Your task to perform on an android device: Add panasonic triple a to the cart on costco Image 0: 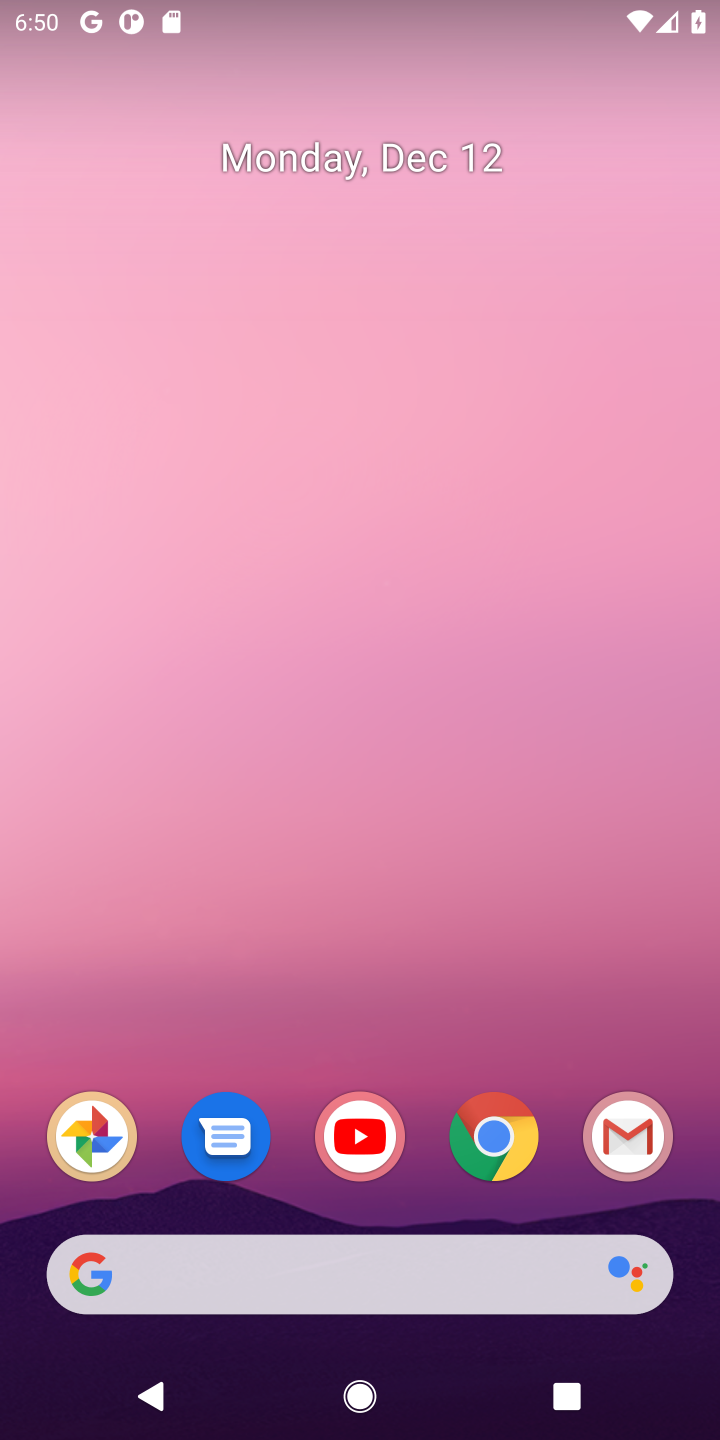
Step 0: click (498, 1134)
Your task to perform on an android device: Add panasonic triple a to the cart on costco Image 1: 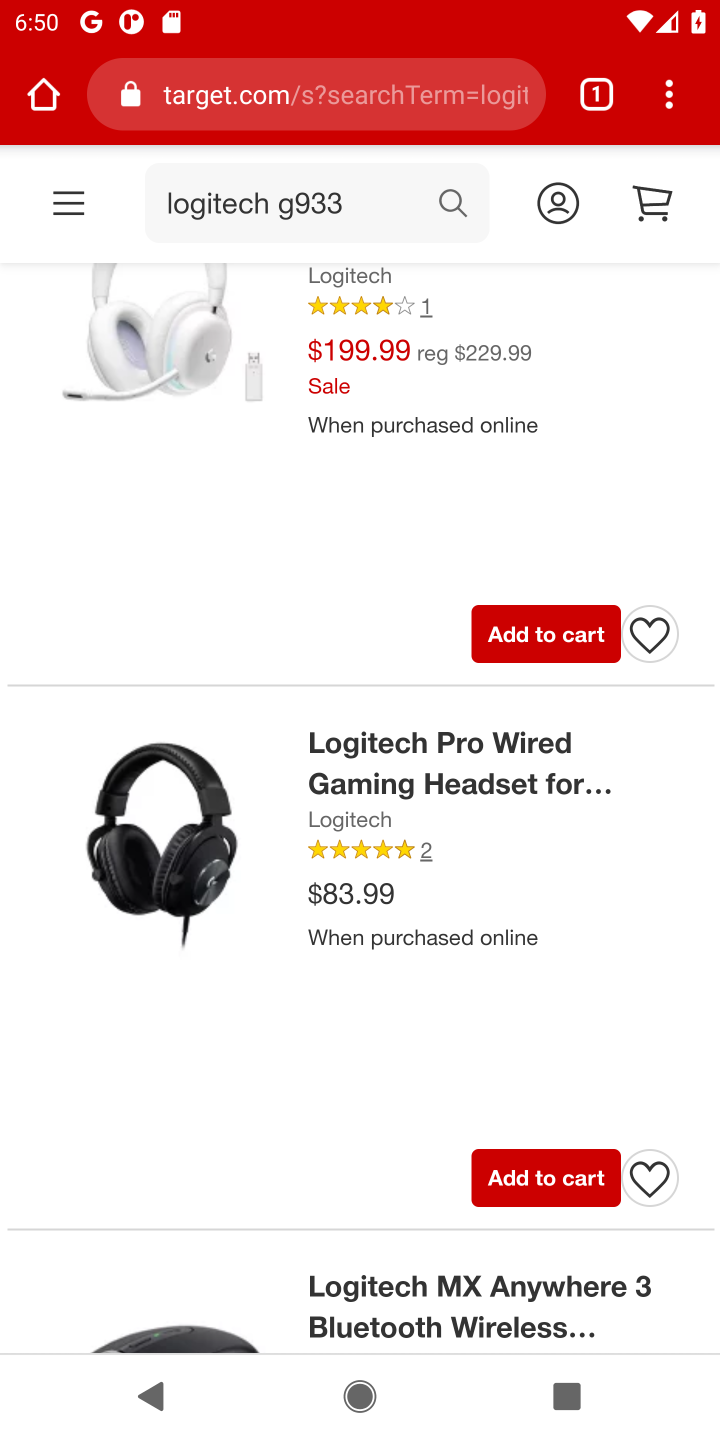
Step 1: click (310, 99)
Your task to perform on an android device: Add panasonic triple a to the cart on costco Image 2: 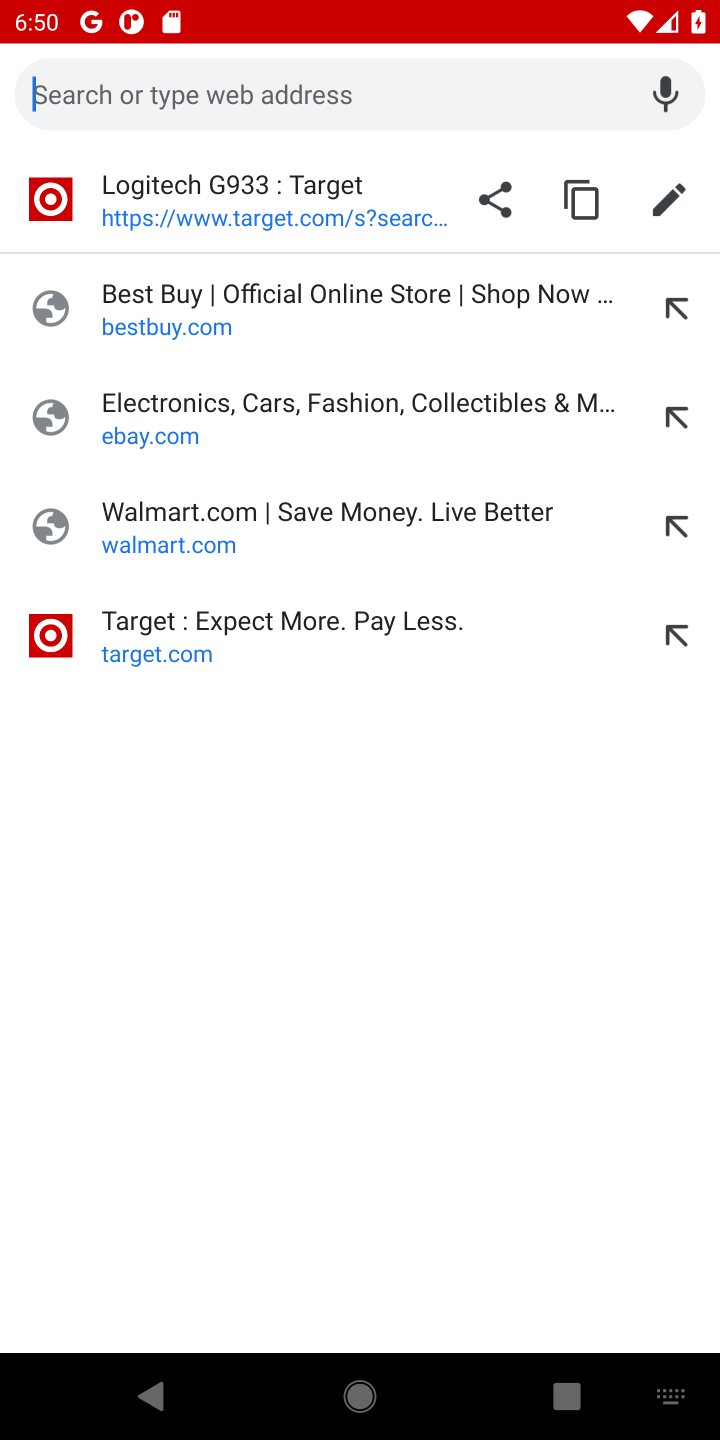
Step 2: type "costco.com"
Your task to perform on an android device: Add panasonic triple a to the cart on costco Image 3: 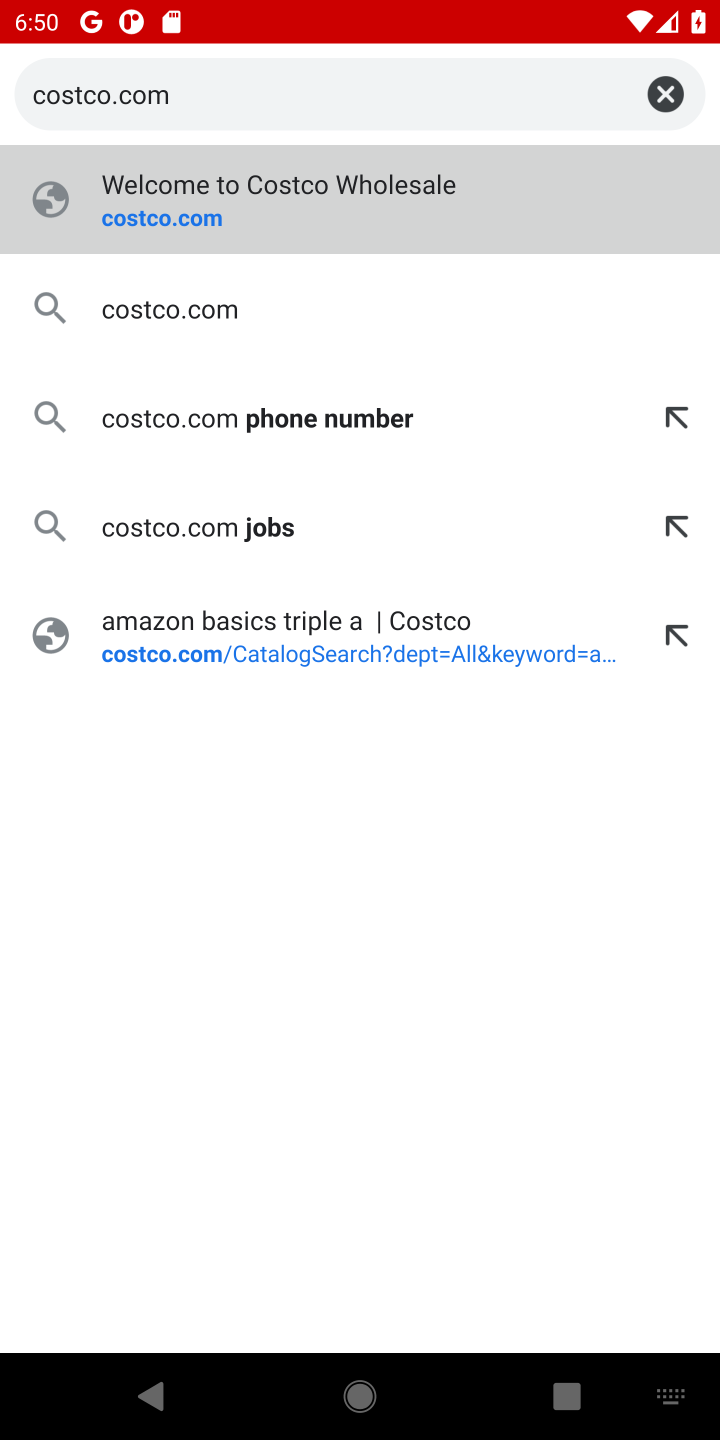
Step 3: click (152, 224)
Your task to perform on an android device: Add panasonic triple a to the cart on costco Image 4: 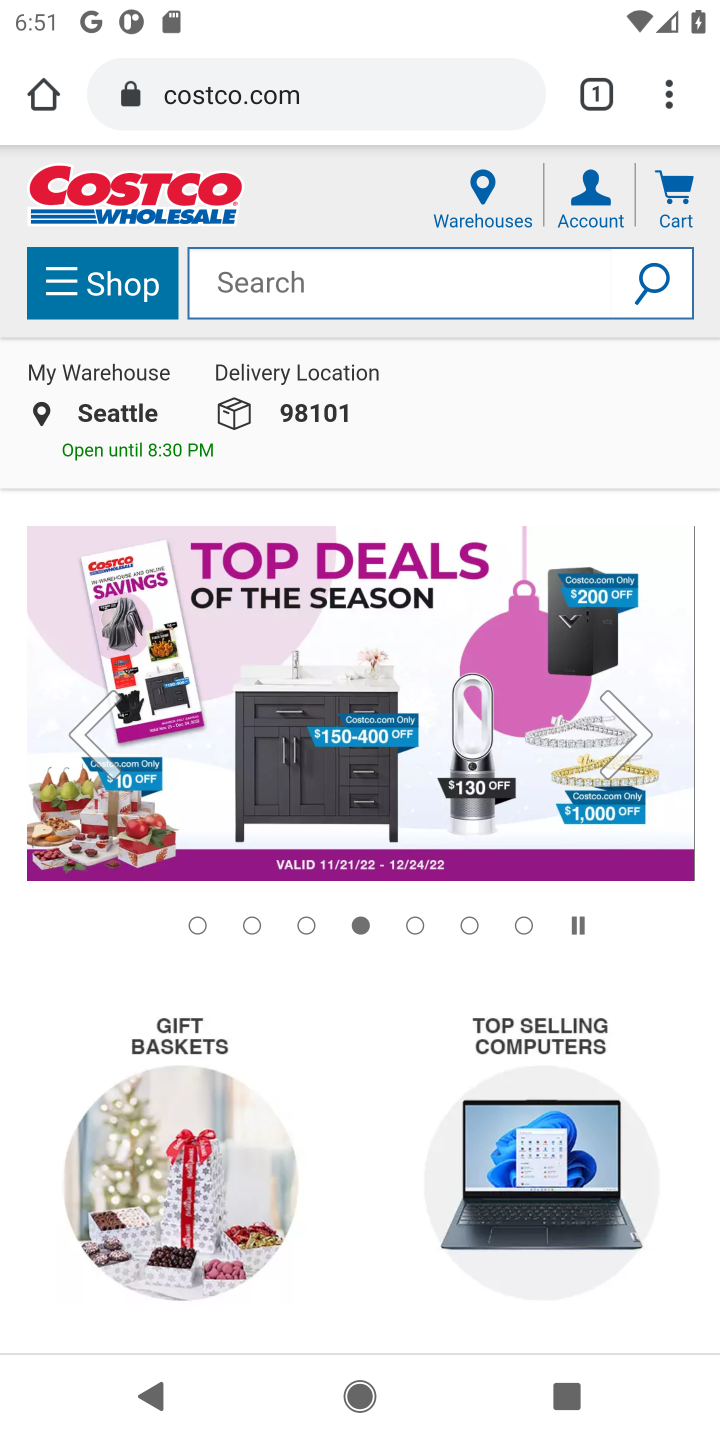
Step 4: click (368, 281)
Your task to perform on an android device: Add panasonic triple a to the cart on costco Image 5: 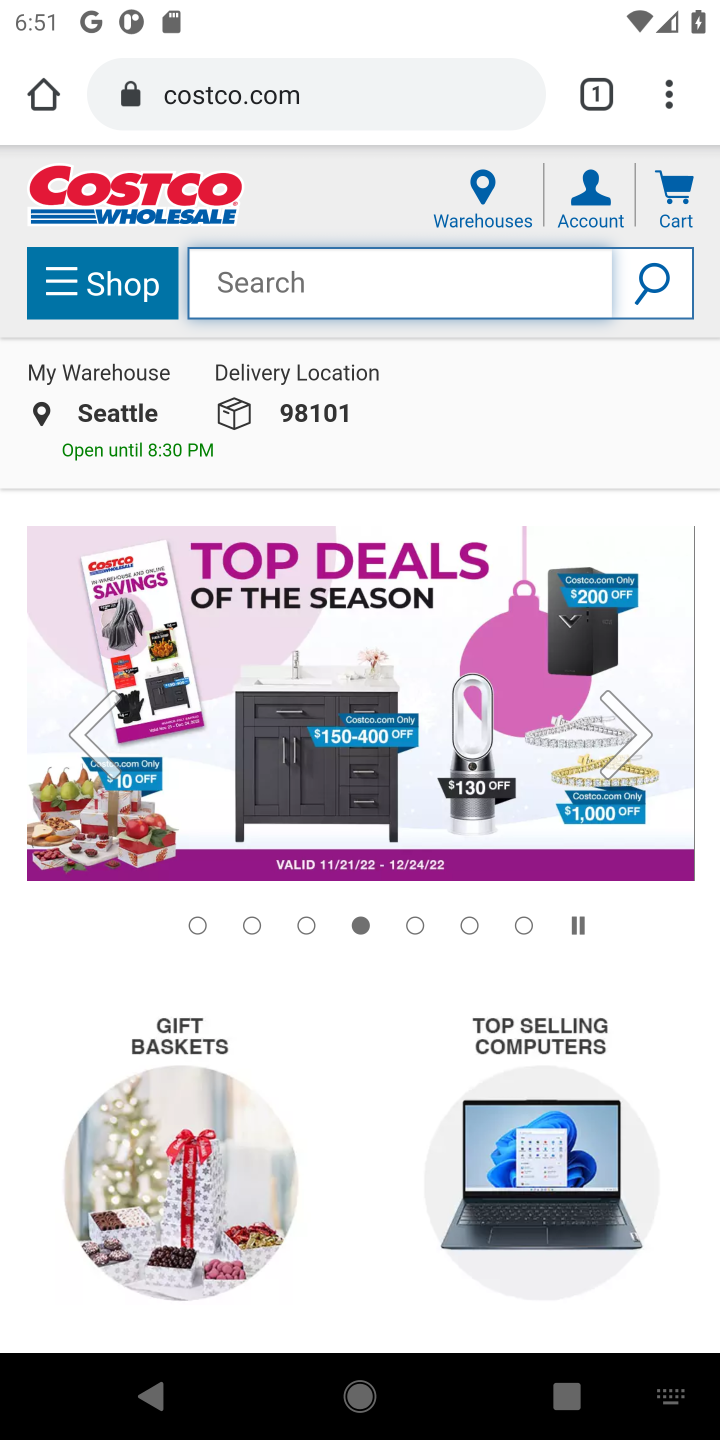
Step 5: type "panasonic triple a"
Your task to perform on an android device: Add panasonic triple a to the cart on costco Image 6: 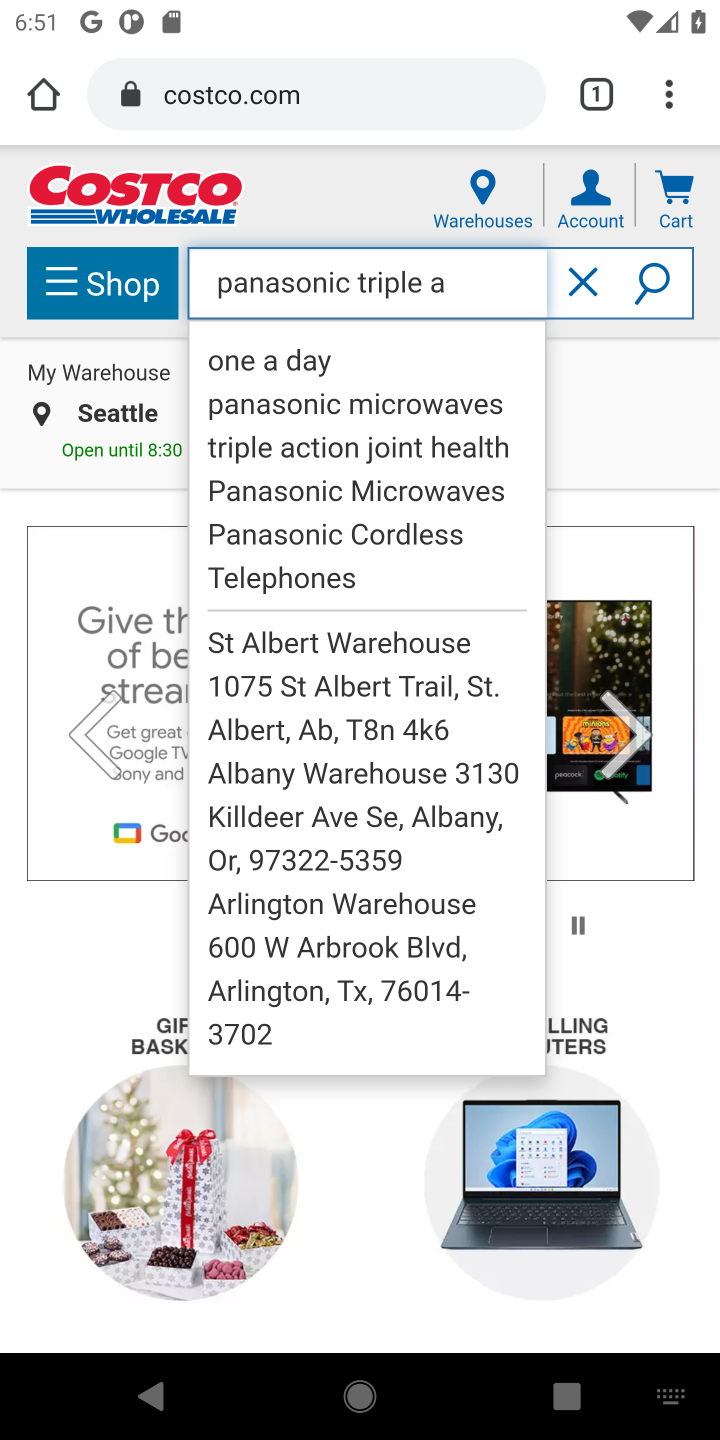
Step 6: click (664, 279)
Your task to perform on an android device: Add panasonic triple a to the cart on costco Image 7: 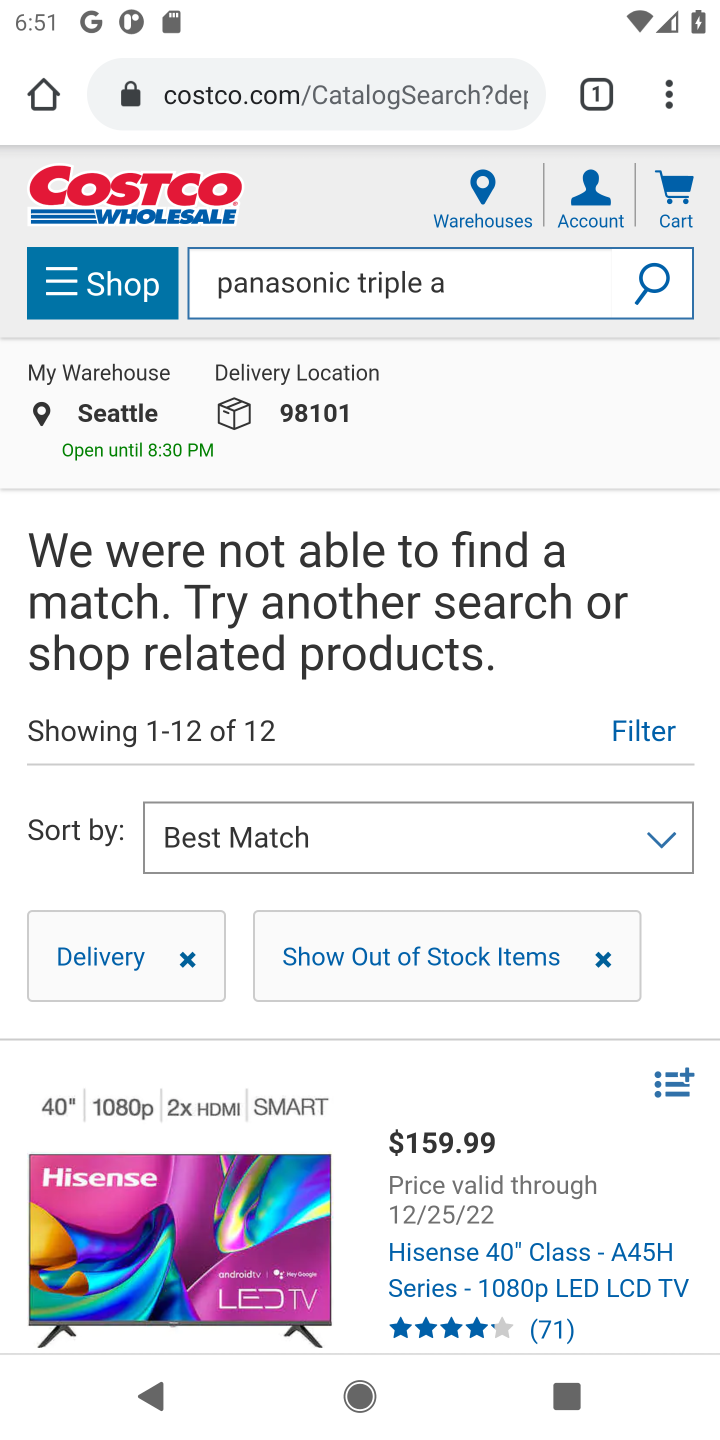
Step 7: task complete